Your task to perform on an android device: turn notification dots on Image 0: 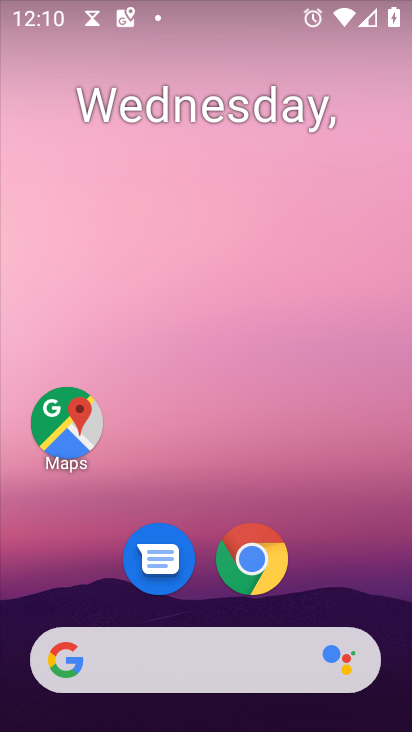
Step 0: drag from (354, 590) to (364, 89)
Your task to perform on an android device: turn notification dots on Image 1: 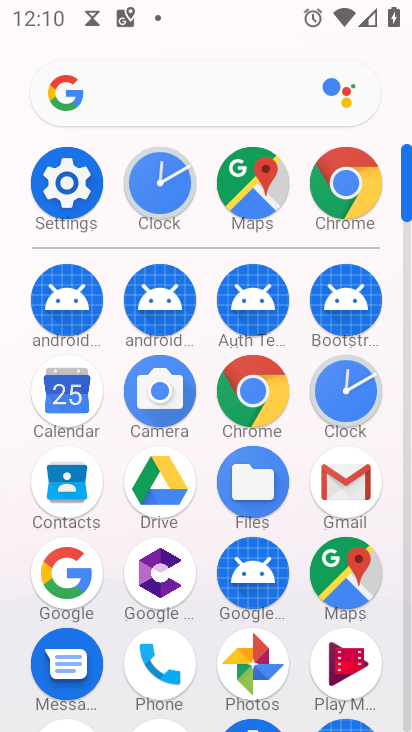
Step 1: drag from (396, 476) to (406, 257)
Your task to perform on an android device: turn notification dots on Image 2: 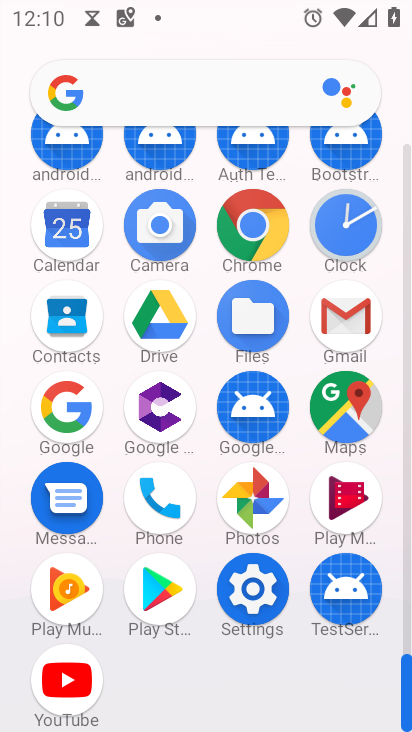
Step 2: drag from (390, 410) to (404, 624)
Your task to perform on an android device: turn notification dots on Image 3: 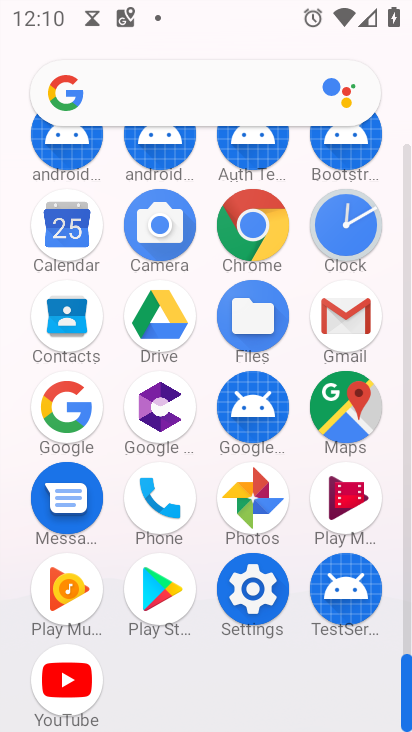
Step 3: drag from (402, 312) to (400, 643)
Your task to perform on an android device: turn notification dots on Image 4: 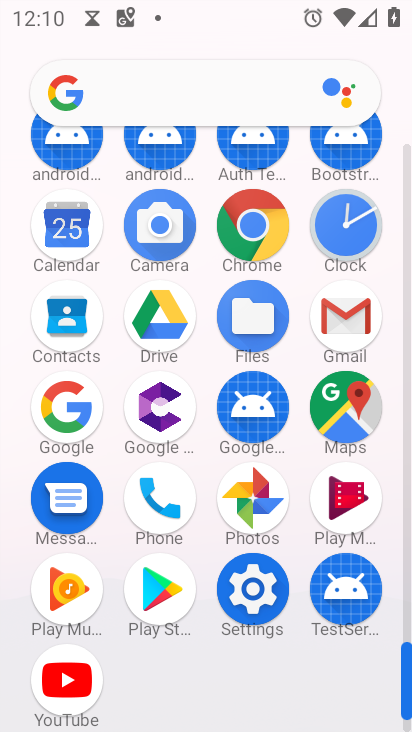
Step 4: drag from (400, 299) to (411, 474)
Your task to perform on an android device: turn notification dots on Image 5: 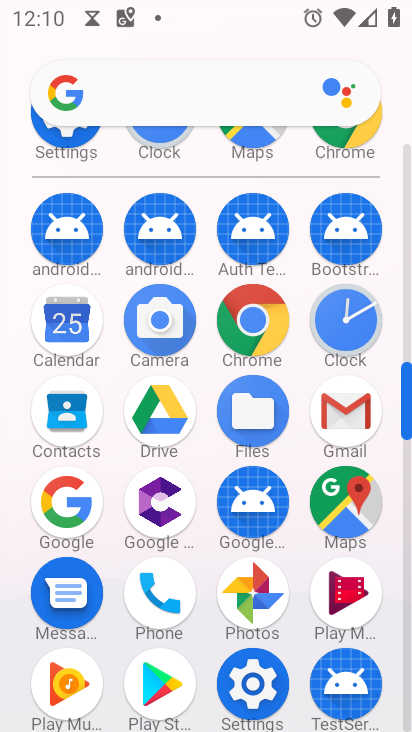
Step 5: click (88, 204)
Your task to perform on an android device: turn notification dots on Image 6: 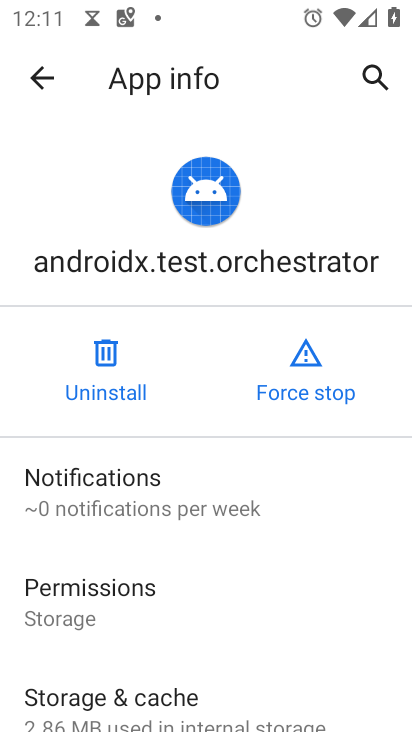
Step 6: press back button
Your task to perform on an android device: turn notification dots on Image 7: 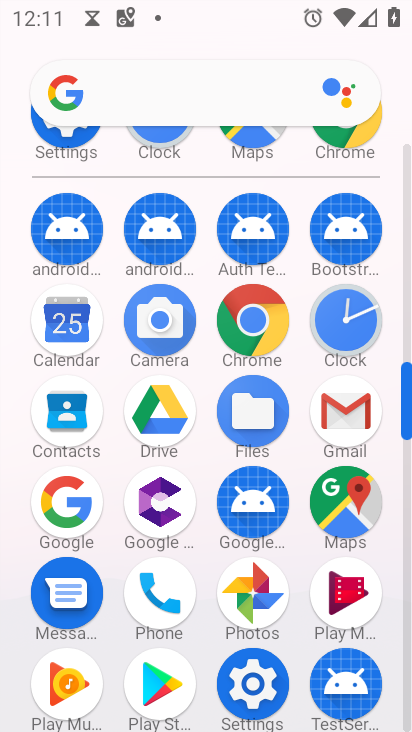
Step 7: drag from (367, 331) to (384, 600)
Your task to perform on an android device: turn notification dots on Image 8: 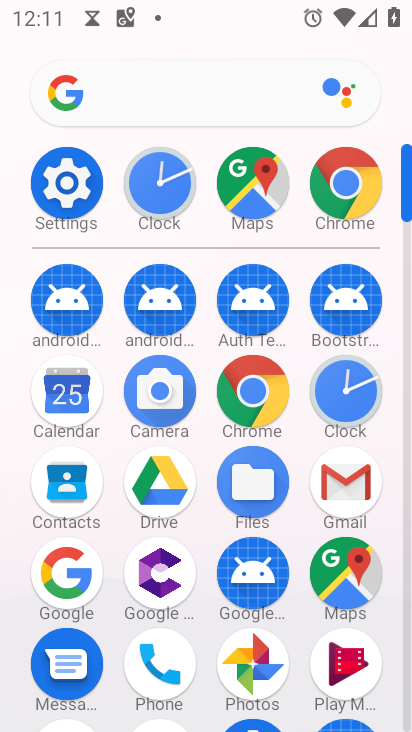
Step 8: click (57, 193)
Your task to perform on an android device: turn notification dots on Image 9: 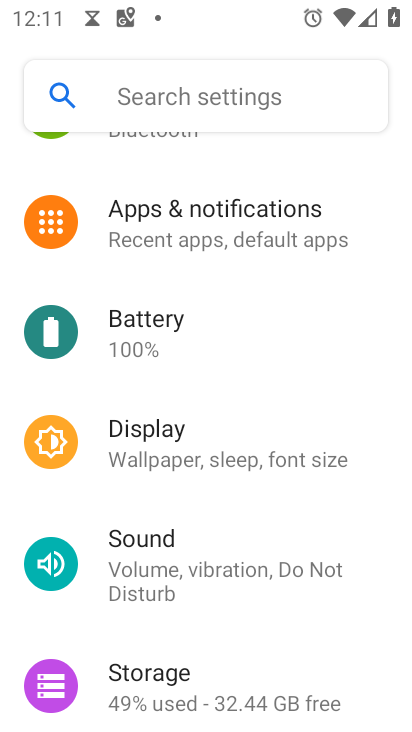
Step 9: click (261, 209)
Your task to perform on an android device: turn notification dots on Image 10: 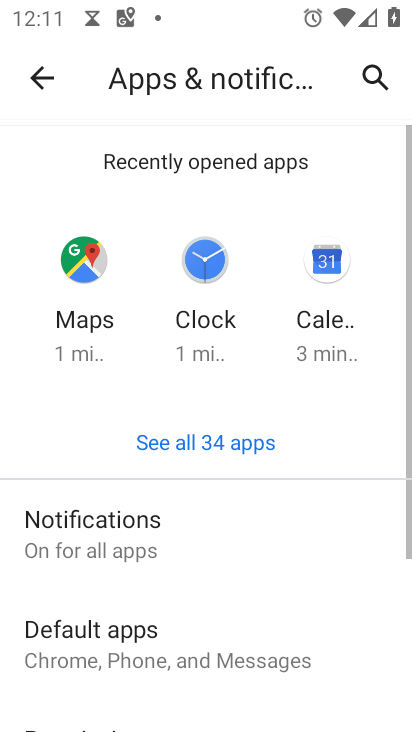
Step 10: click (92, 536)
Your task to perform on an android device: turn notification dots on Image 11: 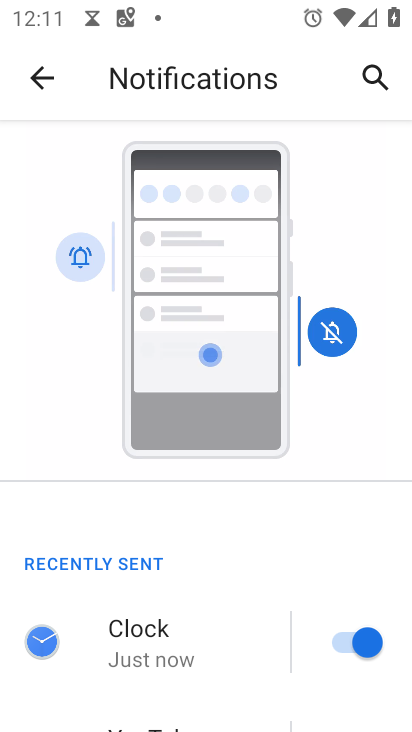
Step 11: drag from (209, 598) to (246, 166)
Your task to perform on an android device: turn notification dots on Image 12: 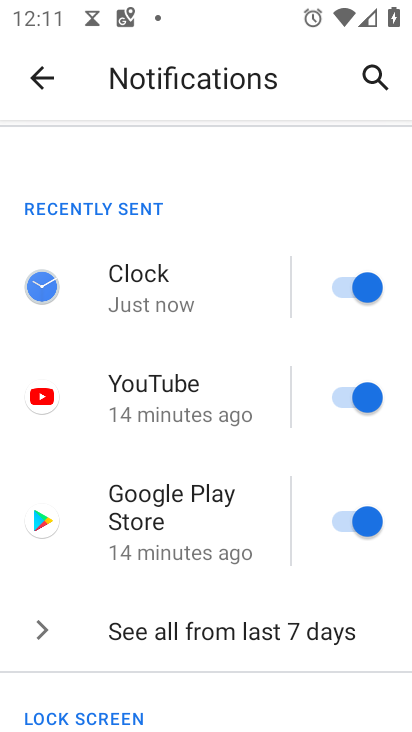
Step 12: drag from (252, 605) to (246, 138)
Your task to perform on an android device: turn notification dots on Image 13: 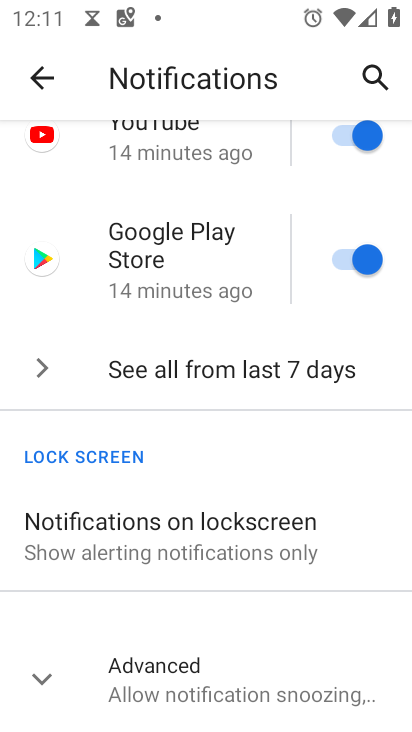
Step 13: click (244, 687)
Your task to perform on an android device: turn notification dots on Image 14: 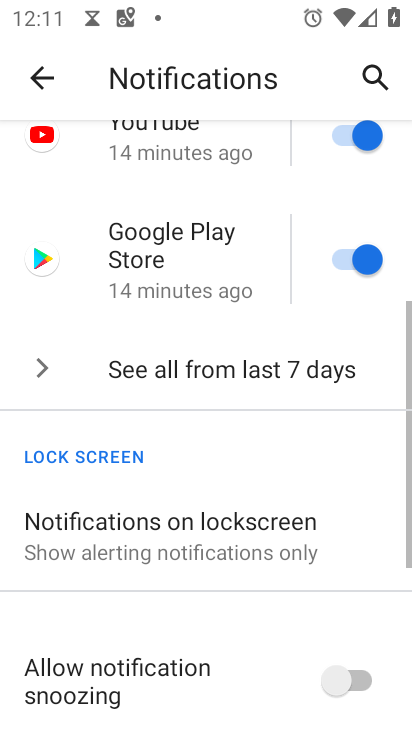
Step 14: drag from (241, 641) to (179, 117)
Your task to perform on an android device: turn notification dots on Image 15: 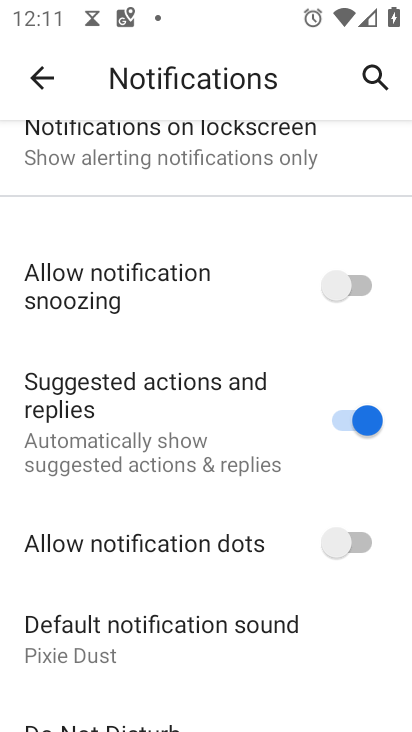
Step 15: click (349, 548)
Your task to perform on an android device: turn notification dots on Image 16: 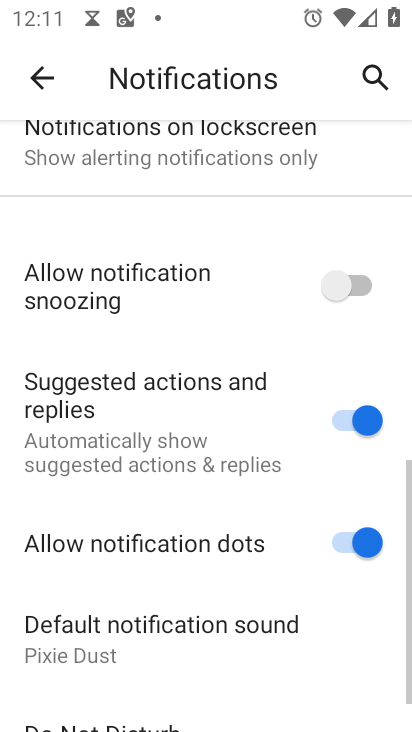
Step 16: task complete